Your task to perform on an android device: see creations saved in the google photos Image 0: 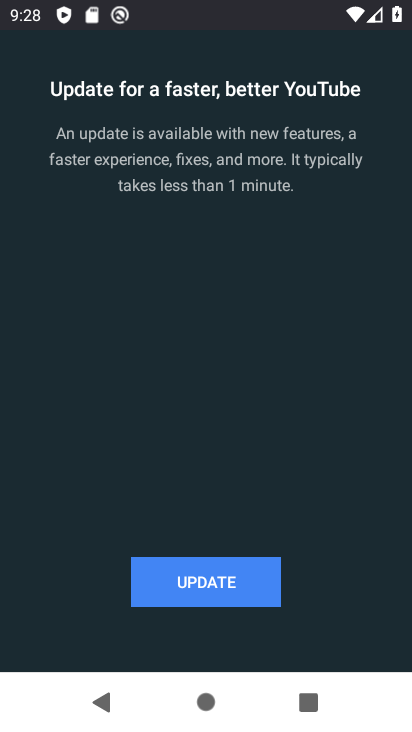
Step 0: task complete